Your task to perform on an android device: Open Google Chrome and click the shortcut for Amazon.com Image 0: 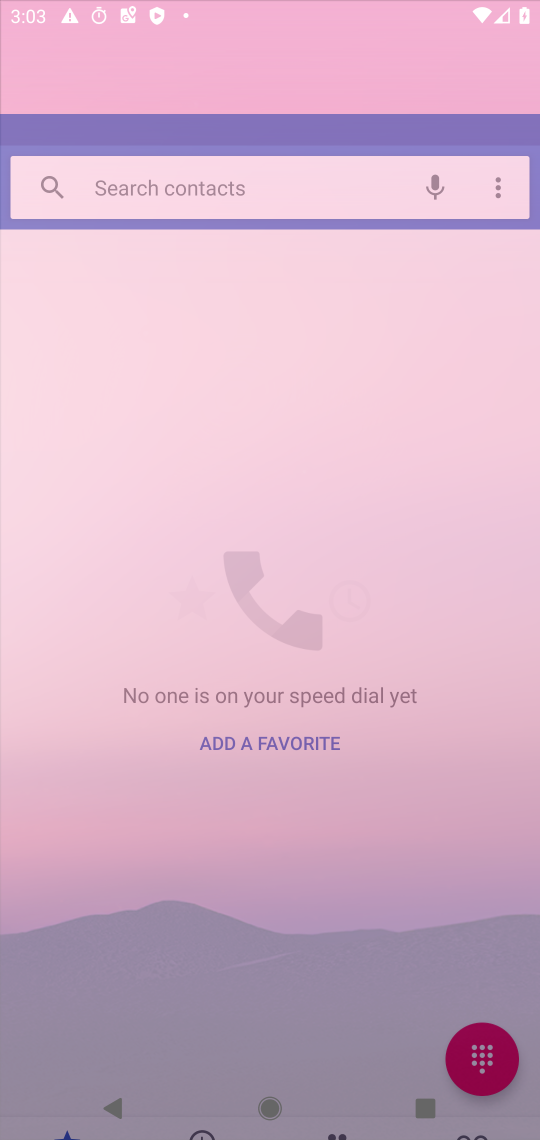
Step 0: press home button
Your task to perform on an android device: Open Google Chrome and click the shortcut for Amazon.com Image 1: 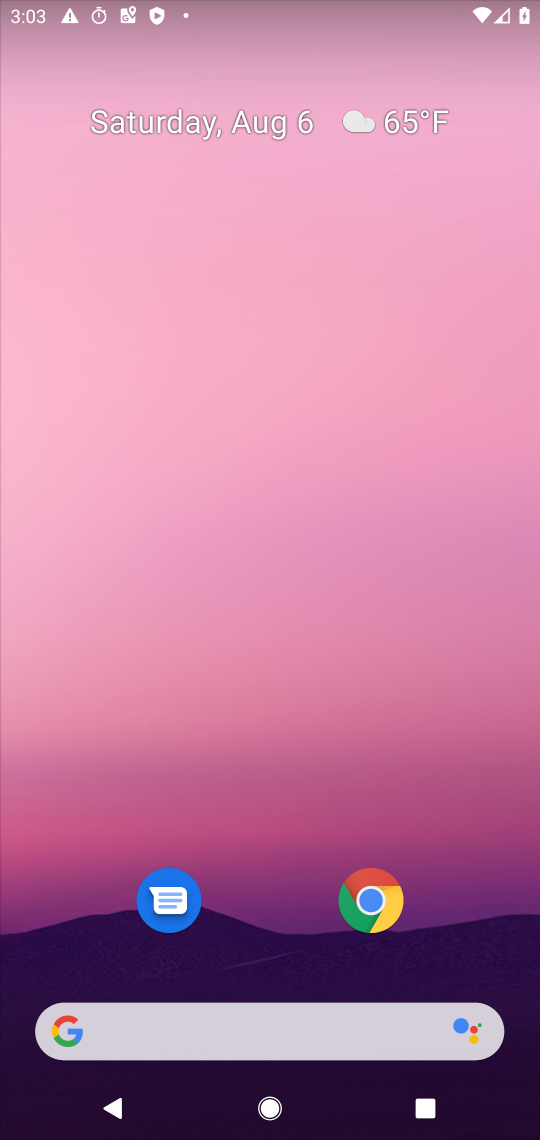
Step 1: click (374, 901)
Your task to perform on an android device: Open Google Chrome and click the shortcut for Amazon.com Image 2: 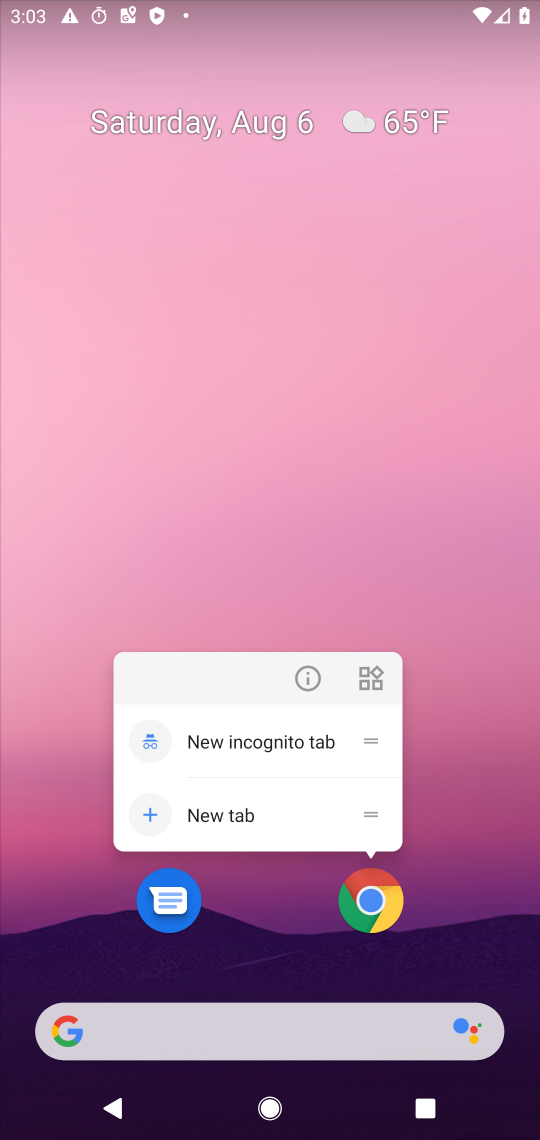
Step 2: click (384, 900)
Your task to perform on an android device: Open Google Chrome and click the shortcut for Amazon.com Image 3: 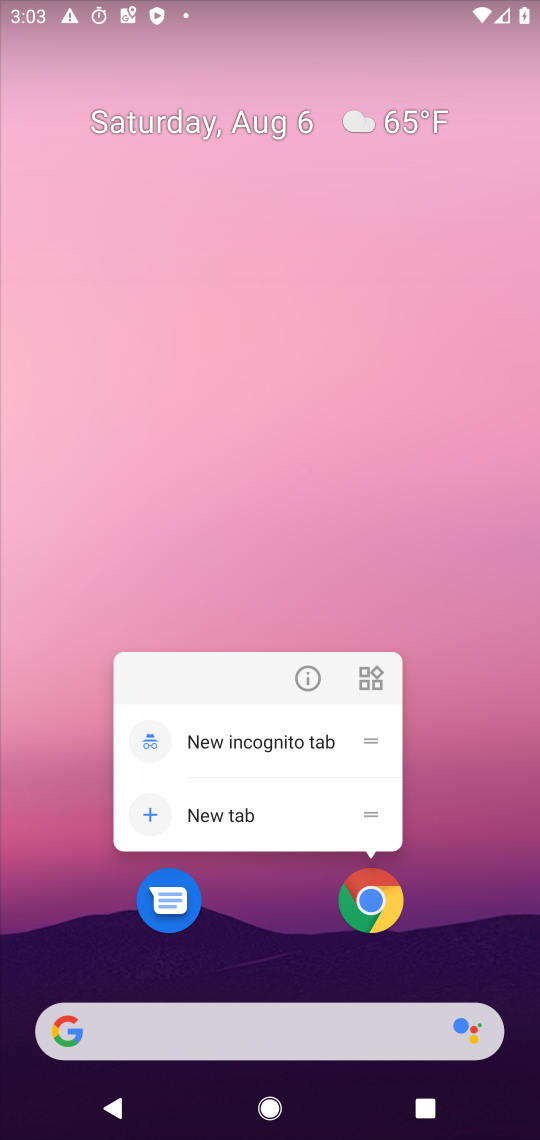
Step 3: click (383, 900)
Your task to perform on an android device: Open Google Chrome and click the shortcut for Amazon.com Image 4: 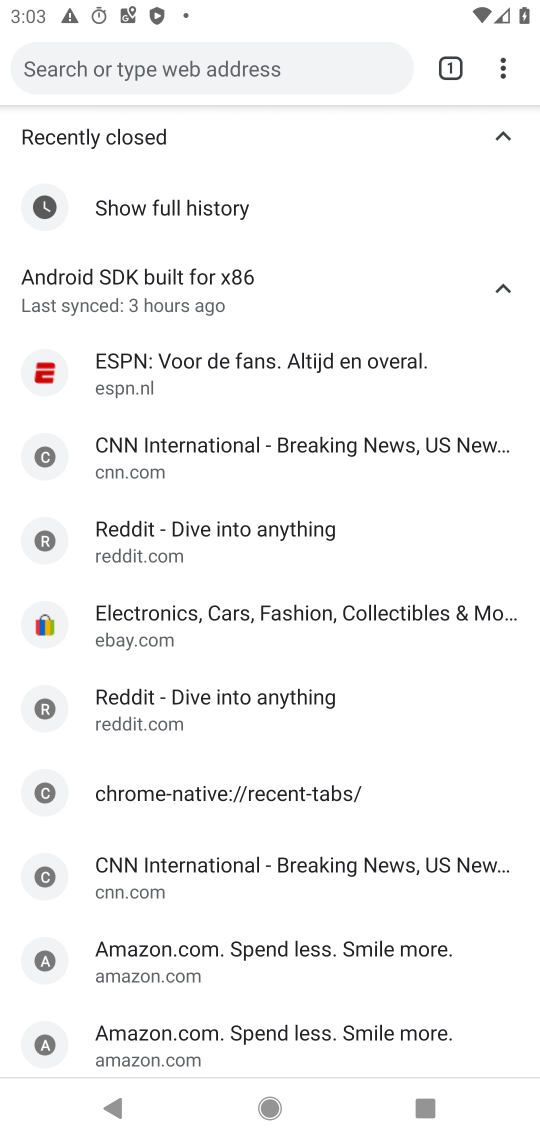
Step 4: click (453, 68)
Your task to perform on an android device: Open Google Chrome and click the shortcut for Amazon.com Image 5: 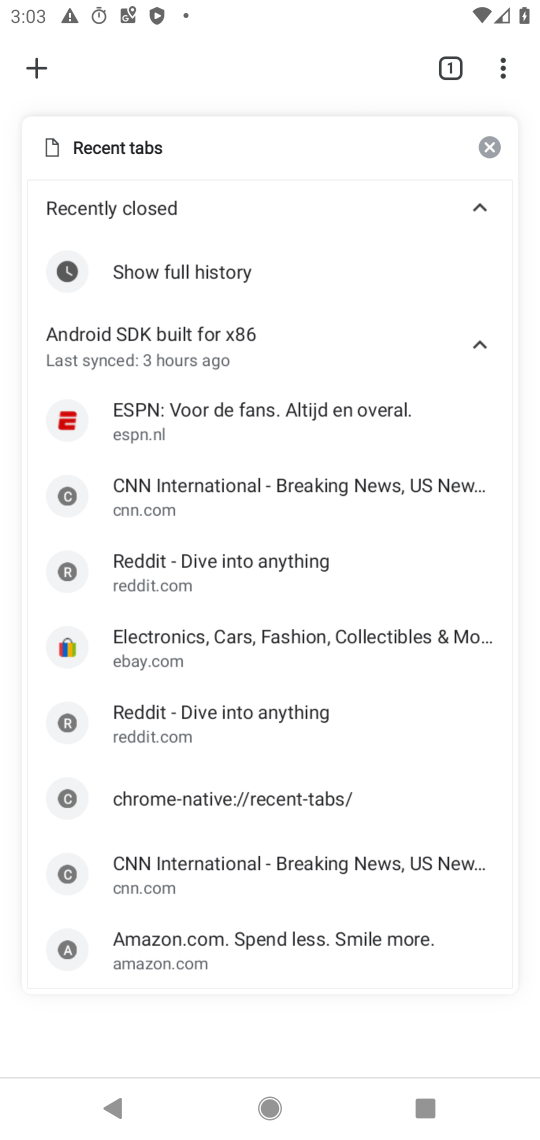
Step 5: click (32, 59)
Your task to perform on an android device: Open Google Chrome and click the shortcut for Amazon.com Image 6: 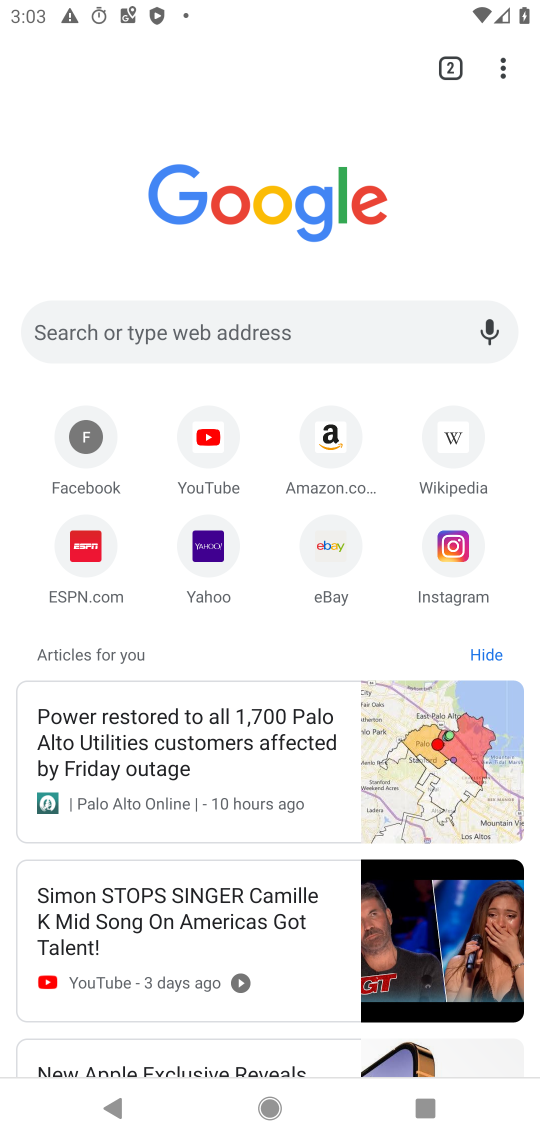
Step 6: click (321, 433)
Your task to perform on an android device: Open Google Chrome and click the shortcut for Amazon.com Image 7: 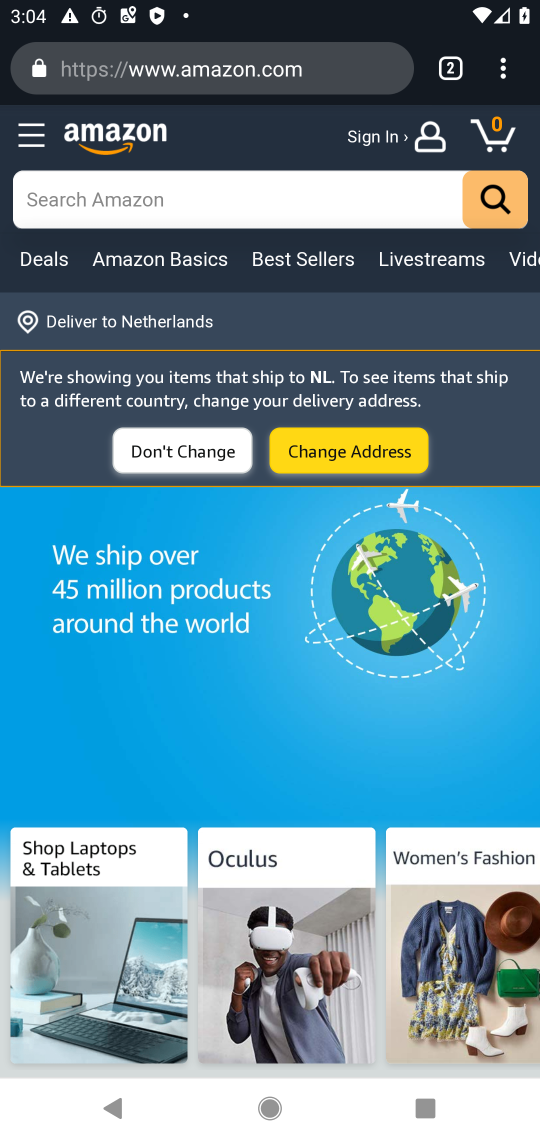
Step 7: task complete